Your task to perform on an android device: Open display settings Image 0: 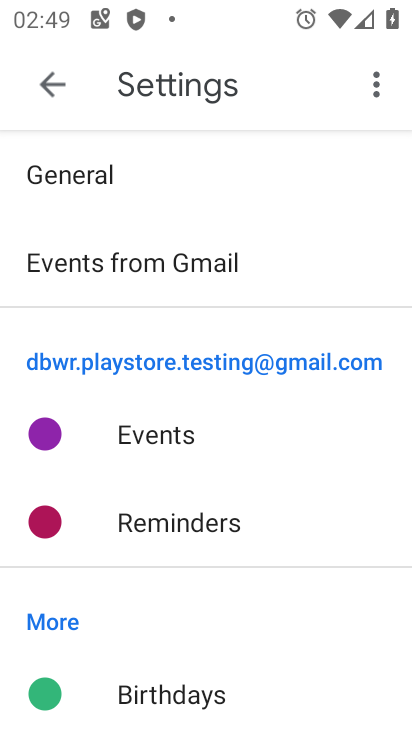
Step 0: task complete